Your task to perform on an android device: delete browsing data in the chrome app Image 0: 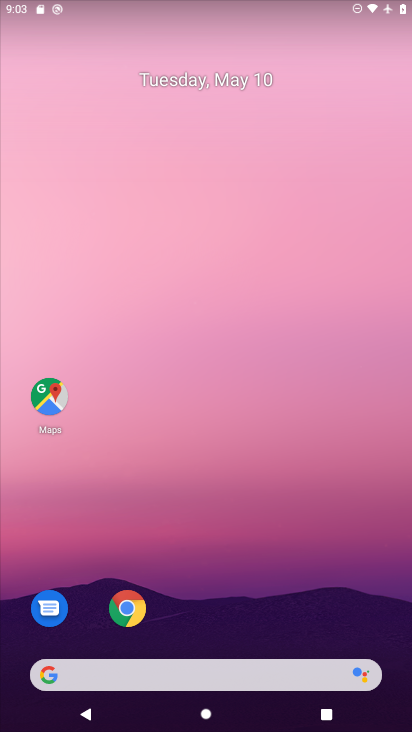
Step 0: drag from (217, 547) to (241, 364)
Your task to perform on an android device: delete browsing data in the chrome app Image 1: 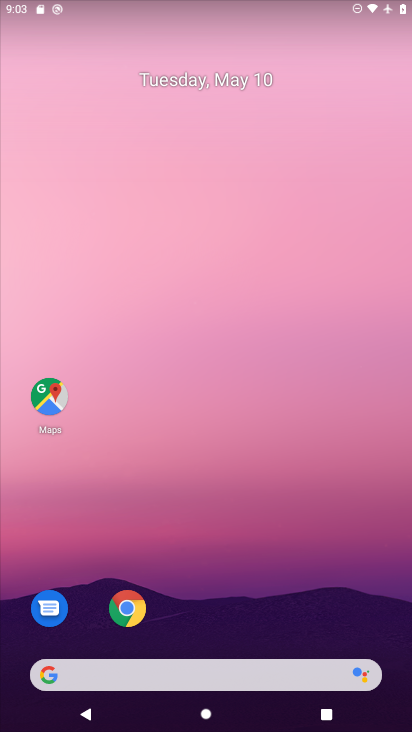
Step 1: drag from (229, 603) to (220, 242)
Your task to perform on an android device: delete browsing data in the chrome app Image 2: 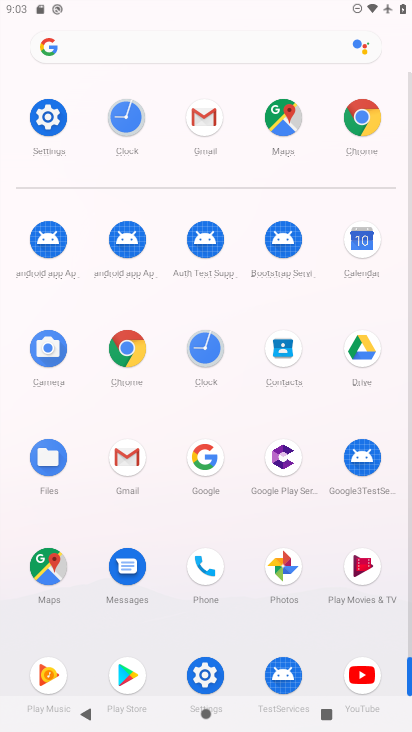
Step 2: click (359, 117)
Your task to perform on an android device: delete browsing data in the chrome app Image 3: 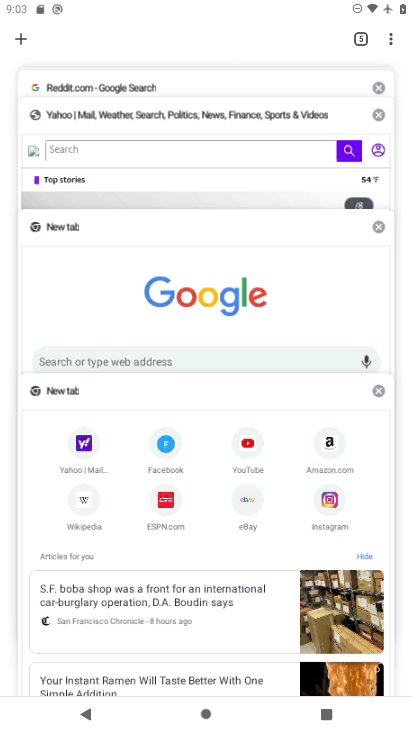
Step 3: click (379, 39)
Your task to perform on an android device: delete browsing data in the chrome app Image 4: 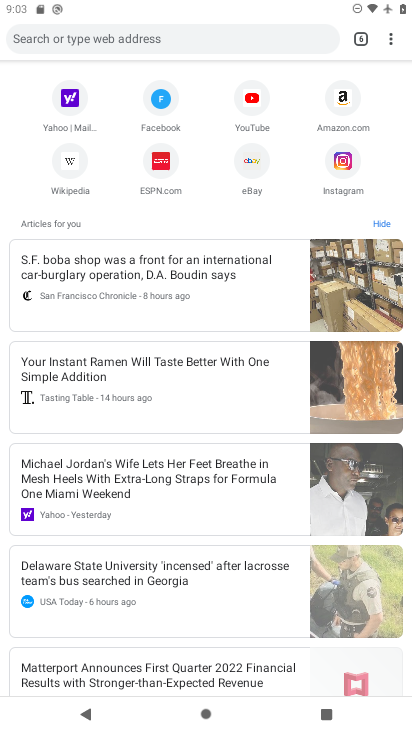
Step 4: click (380, 38)
Your task to perform on an android device: delete browsing data in the chrome app Image 5: 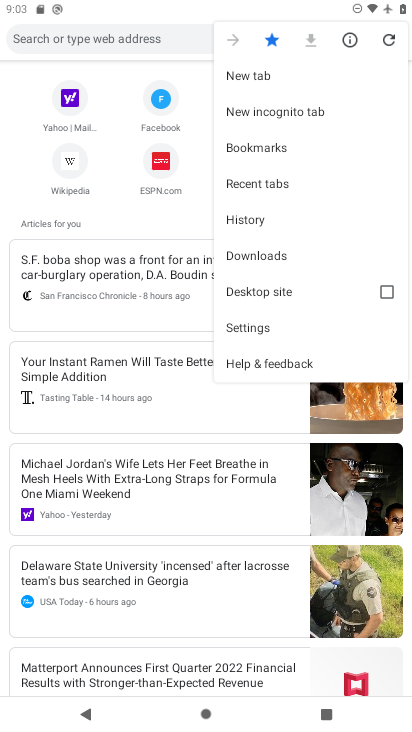
Step 5: click (255, 218)
Your task to perform on an android device: delete browsing data in the chrome app Image 6: 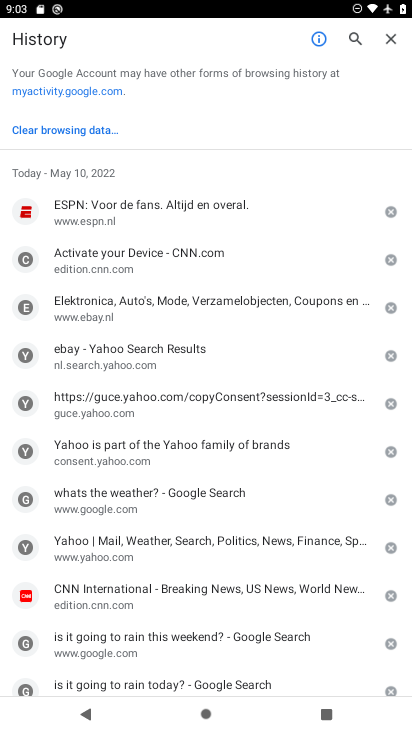
Step 6: click (68, 124)
Your task to perform on an android device: delete browsing data in the chrome app Image 7: 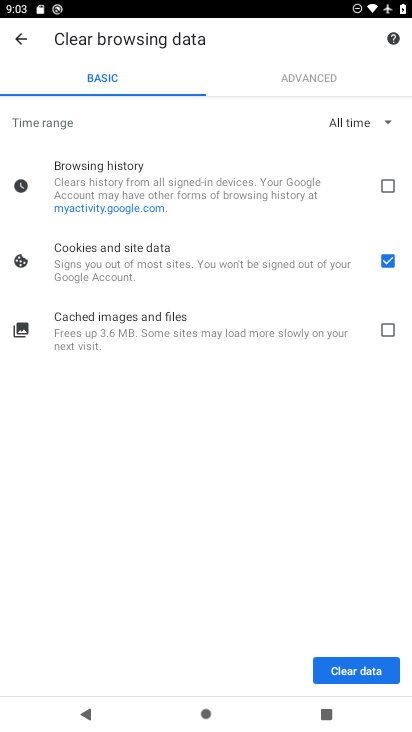
Step 7: click (378, 181)
Your task to perform on an android device: delete browsing data in the chrome app Image 8: 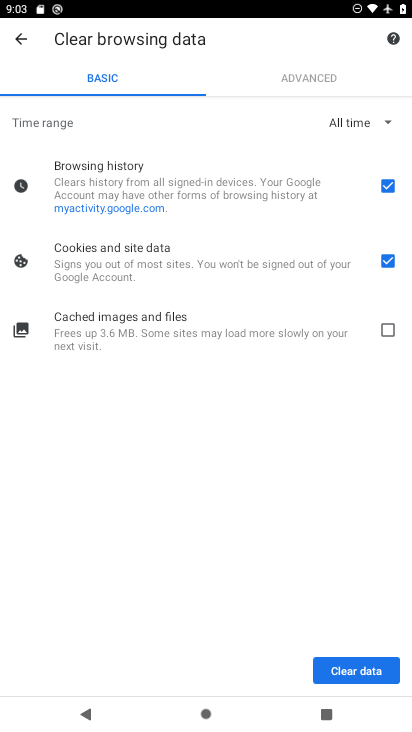
Step 8: click (378, 329)
Your task to perform on an android device: delete browsing data in the chrome app Image 9: 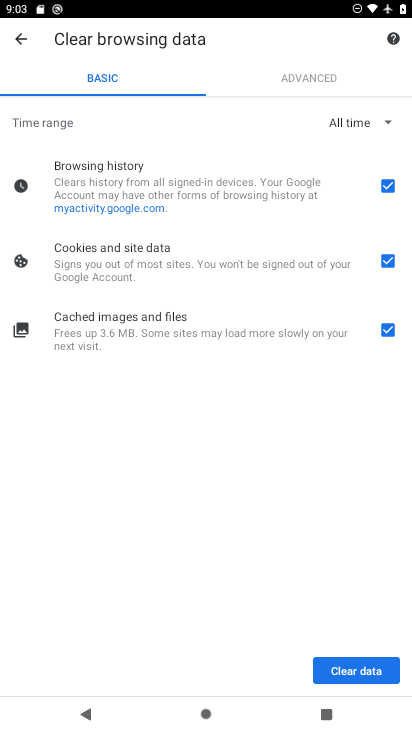
Step 9: click (339, 674)
Your task to perform on an android device: delete browsing data in the chrome app Image 10: 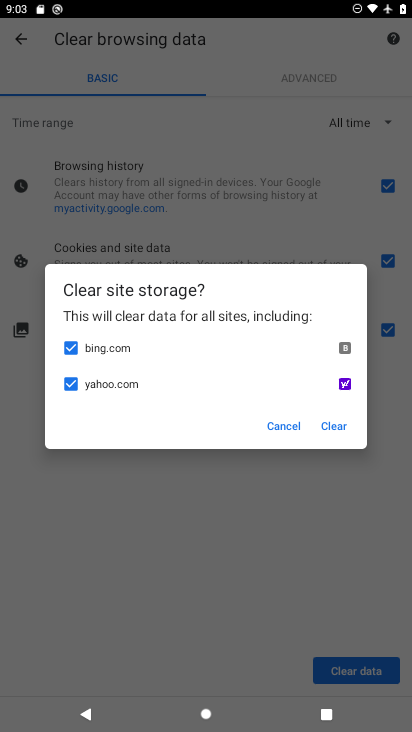
Step 10: click (330, 426)
Your task to perform on an android device: delete browsing data in the chrome app Image 11: 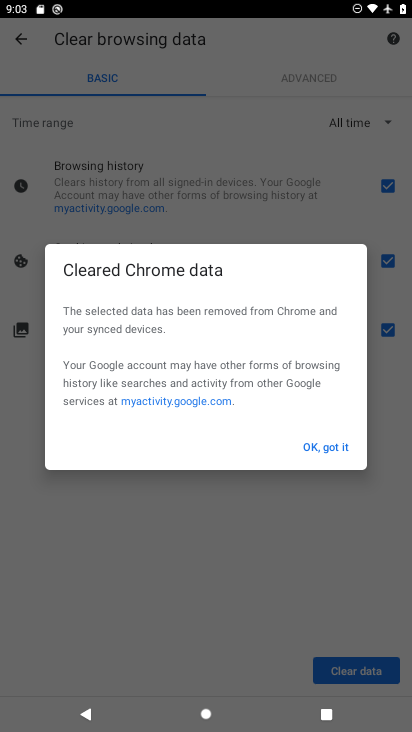
Step 11: click (322, 450)
Your task to perform on an android device: delete browsing data in the chrome app Image 12: 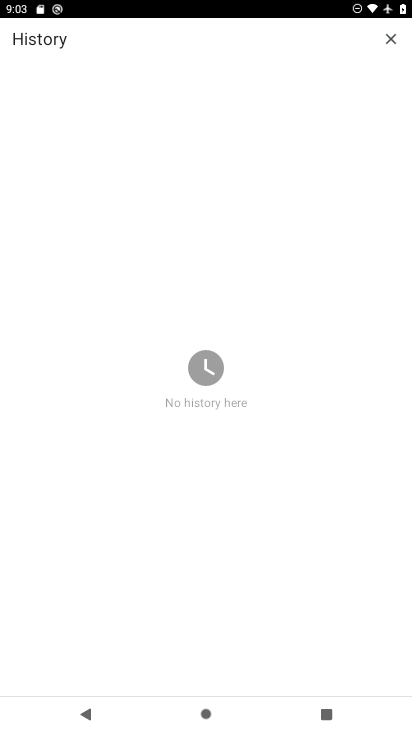
Step 12: task complete